Your task to perform on an android device: What is the recent news? Image 0: 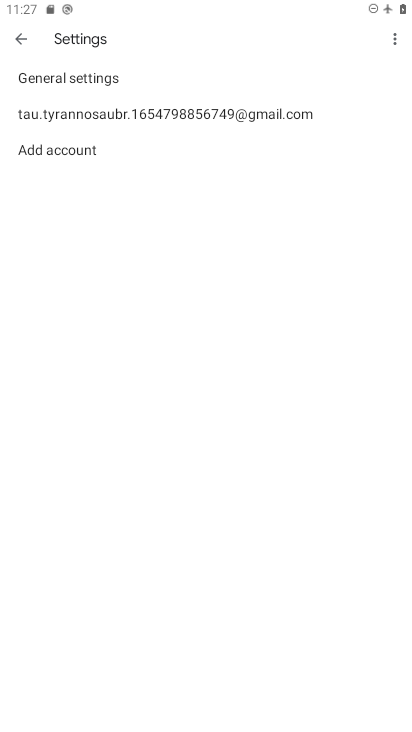
Step 0: press home button
Your task to perform on an android device: What is the recent news? Image 1: 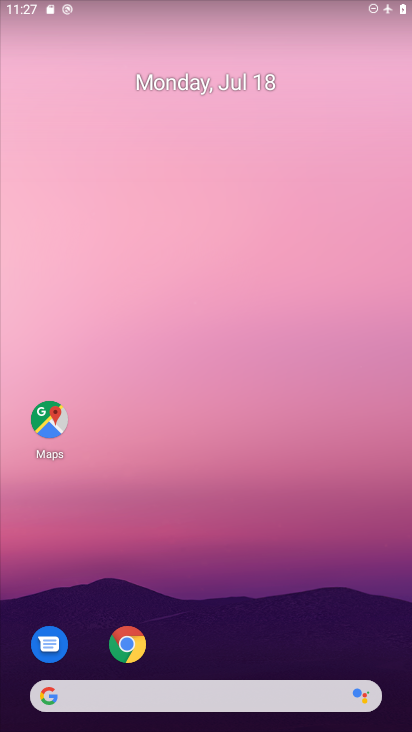
Step 1: click (190, 714)
Your task to perform on an android device: What is the recent news? Image 2: 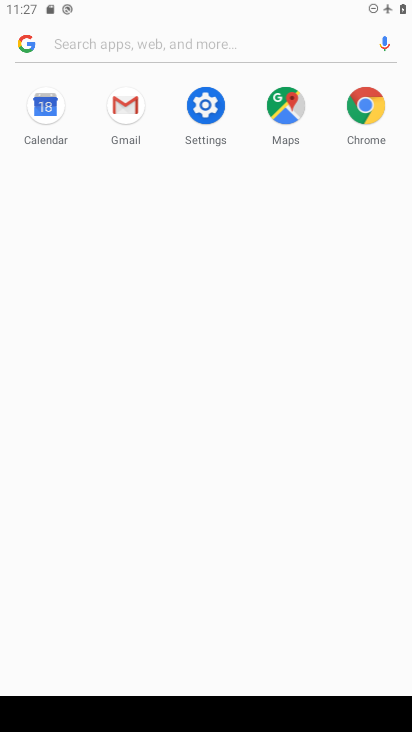
Step 2: type "news"
Your task to perform on an android device: What is the recent news? Image 3: 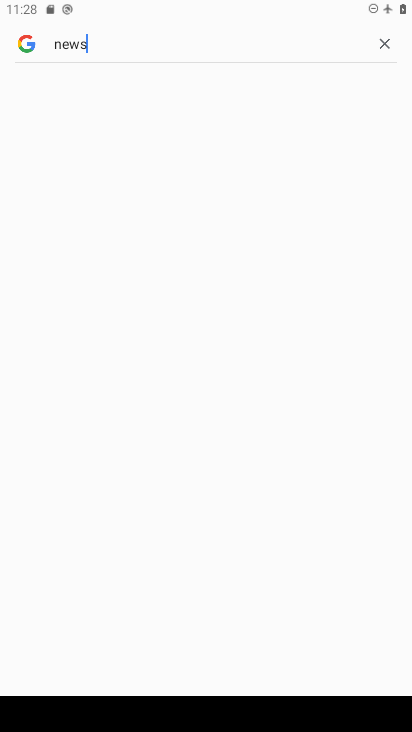
Step 3: task complete